Your task to perform on an android device: toggle javascript in the chrome app Image 0: 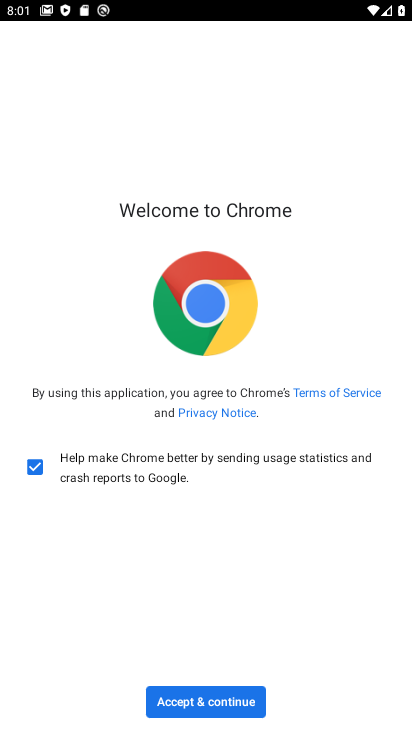
Step 0: click (178, 706)
Your task to perform on an android device: toggle javascript in the chrome app Image 1: 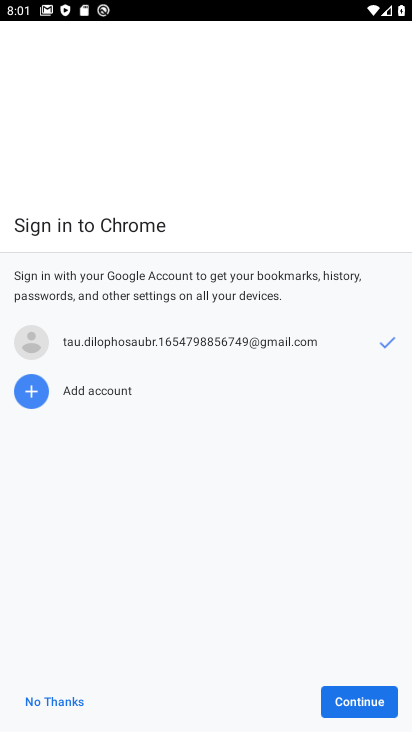
Step 1: press home button
Your task to perform on an android device: toggle javascript in the chrome app Image 2: 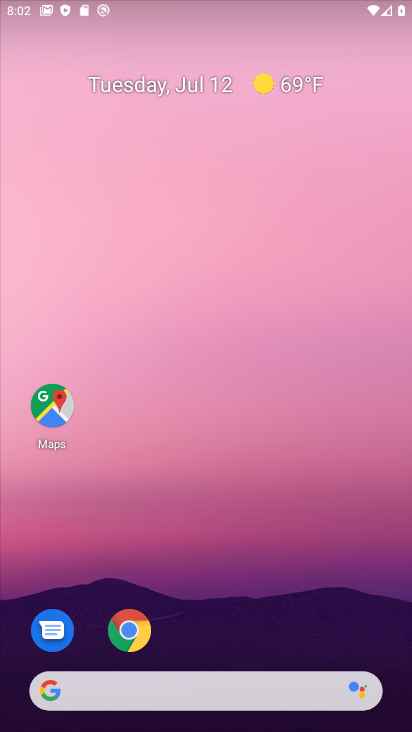
Step 2: drag from (341, 598) to (410, 45)
Your task to perform on an android device: toggle javascript in the chrome app Image 3: 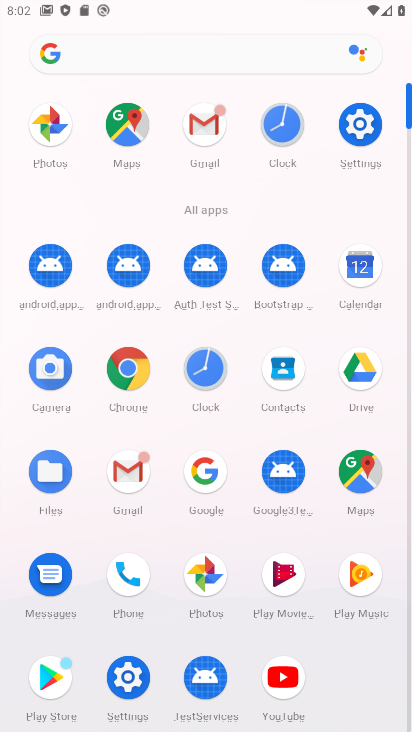
Step 3: click (129, 356)
Your task to perform on an android device: toggle javascript in the chrome app Image 4: 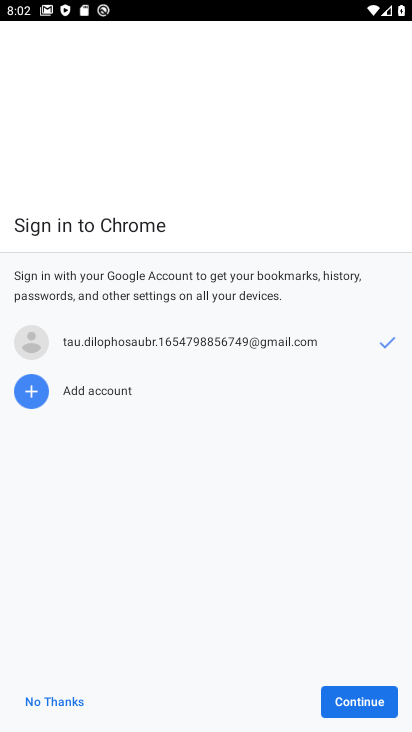
Step 4: click (362, 704)
Your task to perform on an android device: toggle javascript in the chrome app Image 5: 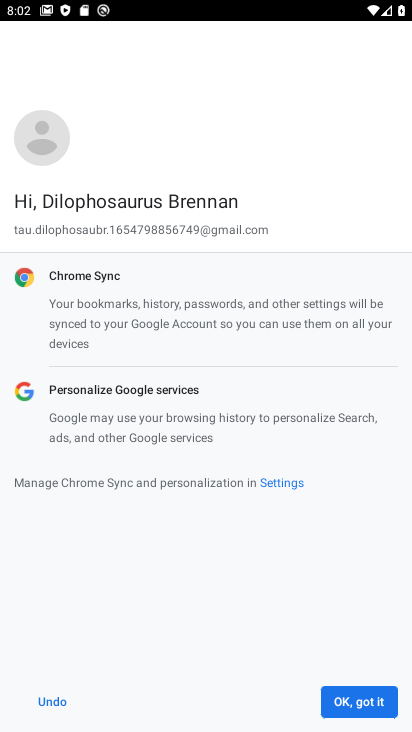
Step 5: click (362, 704)
Your task to perform on an android device: toggle javascript in the chrome app Image 6: 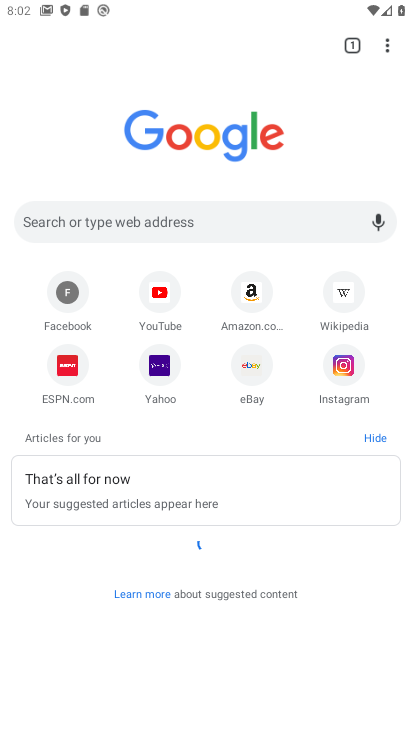
Step 6: drag from (385, 42) to (265, 379)
Your task to perform on an android device: toggle javascript in the chrome app Image 7: 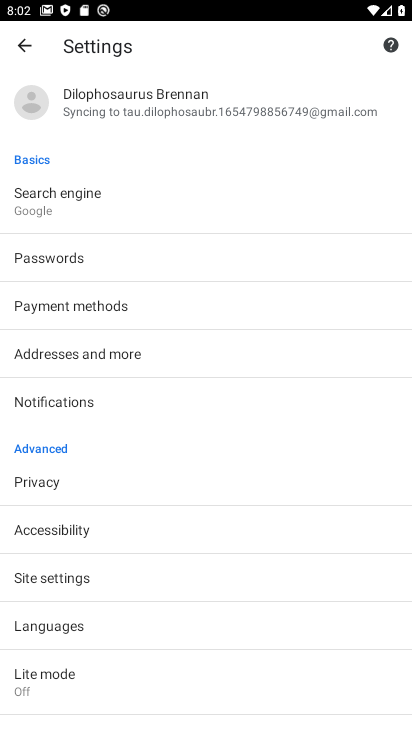
Step 7: click (97, 583)
Your task to perform on an android device: toggle javascript in the chrome app Image 8: 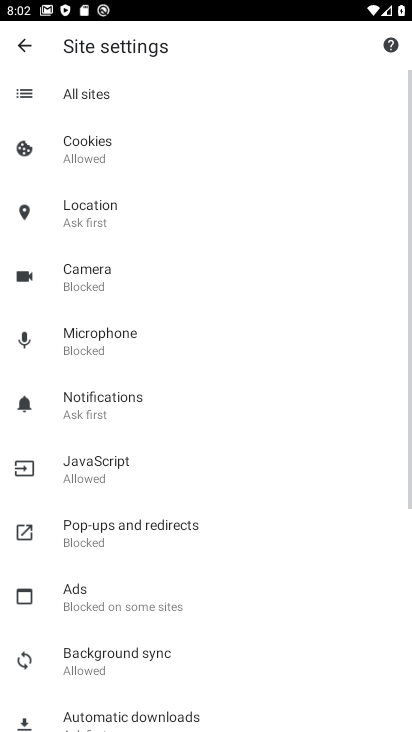
Step 8: click (91, 478)
Your task to perform on an android device: toggle javascript in the chrome app Image 9: 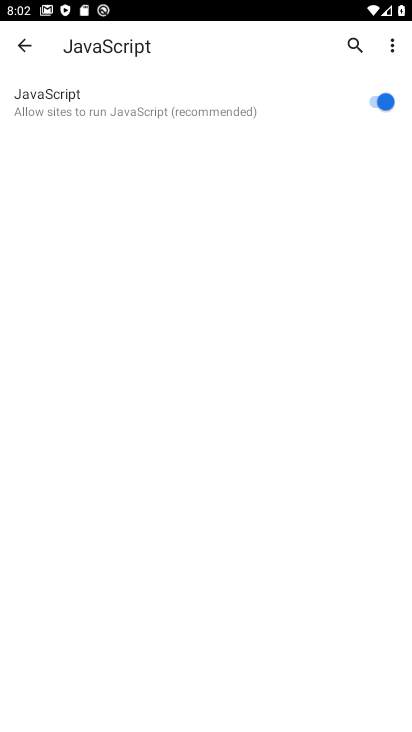
Step 9: click (392, 102)
Your task to perform on an android device: toggle javascript in the chrome app Image 10: 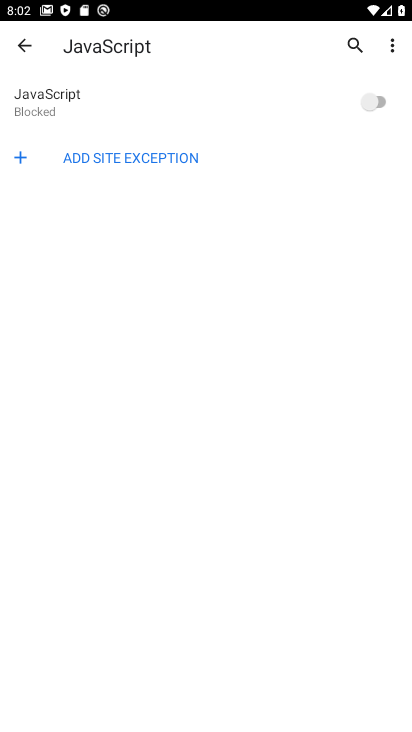
Step 10: task complete